Your task to perform on an android device: change notification settings in the gmail app Image 0: 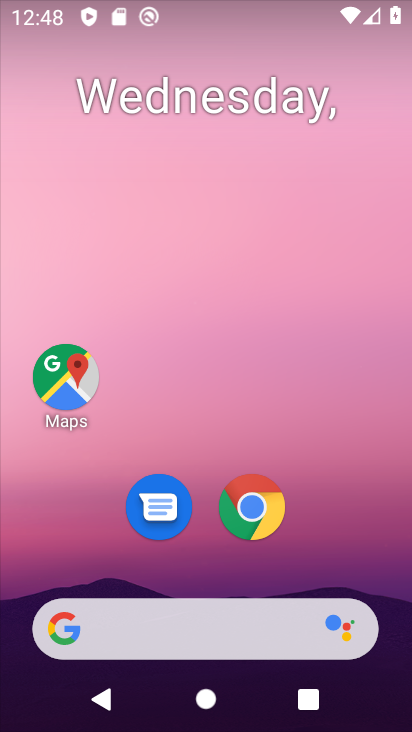
Step 0: press home button
Your task to perform on an android device: change notification settings in the gmail app Image 1: 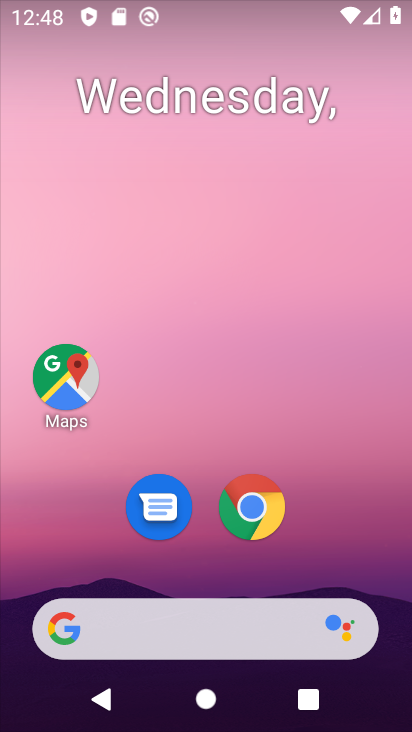
Step 1: drag from (210, 493) to (294, 163)
Your task to perform on an android device: change notification settings in the gmail app Image 2: 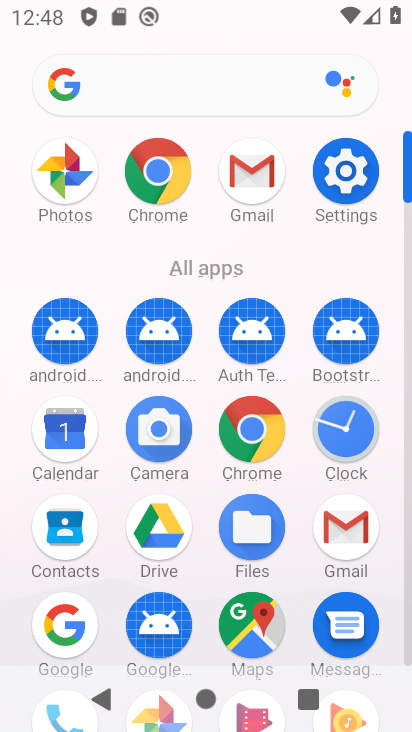
Step 2: click (240, 159)
Your task to perform on an android device: change notification settings in the gmail app Image 3: 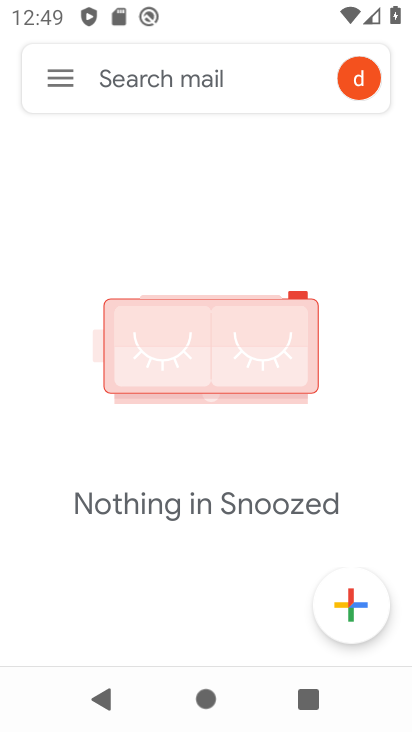
Step 3: click (59, 78)
Your task to perform on an android device: change notification settings in the gmail app Image 4: 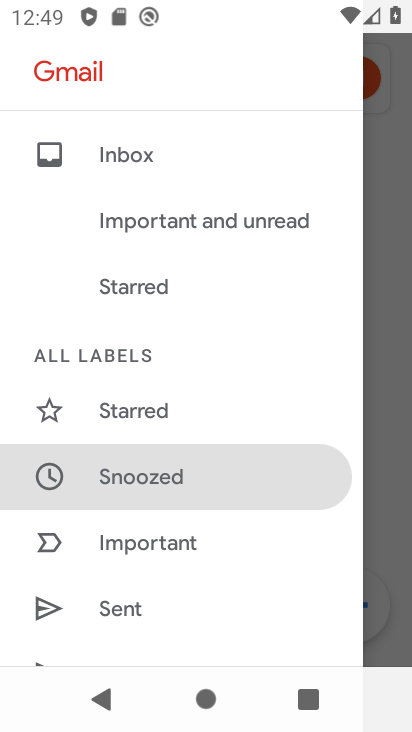
Step 4: drag from (176, 635) to (233, 114)
Your task to perform on an android device: change notification settings in the gmail app Image 5: 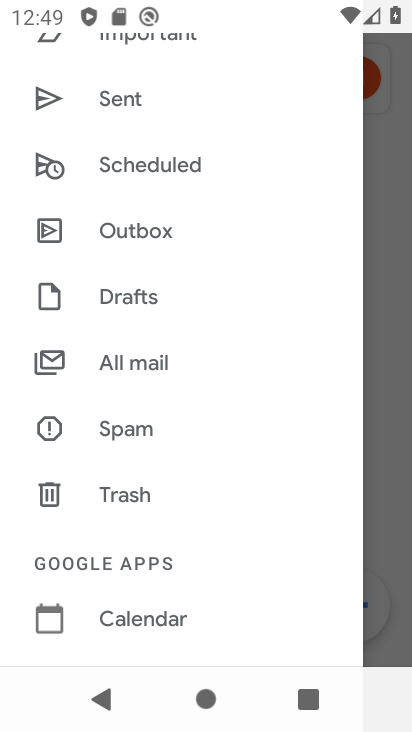
Step 5: drag from (172, 634) to (209, 217)
Your task to perform on an android device: change notification settings in the gmail app Image 6: 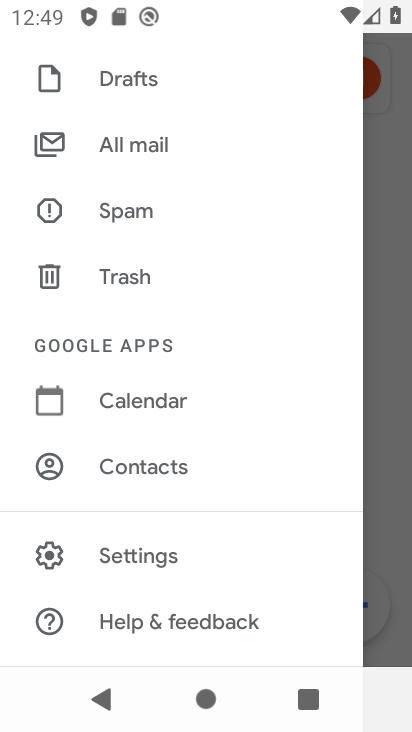
Step 6: click (139, 553)
Your task to perform on an android device: change notification settings in the gmail app Image 7: 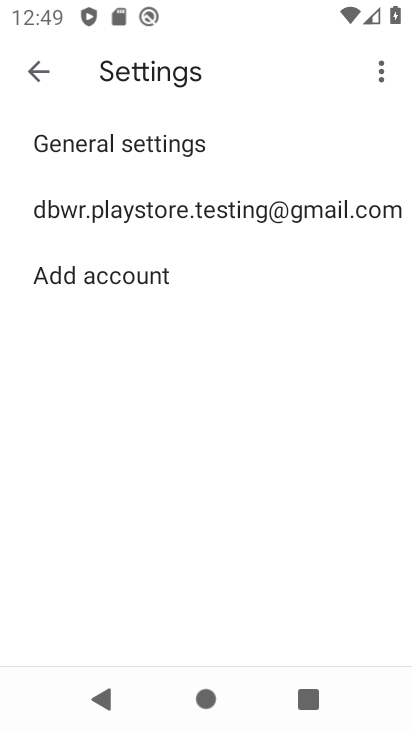
Step 7: click (246, 216)
Your task to perform on an android device: change notification settings in the gmail app Image 8: 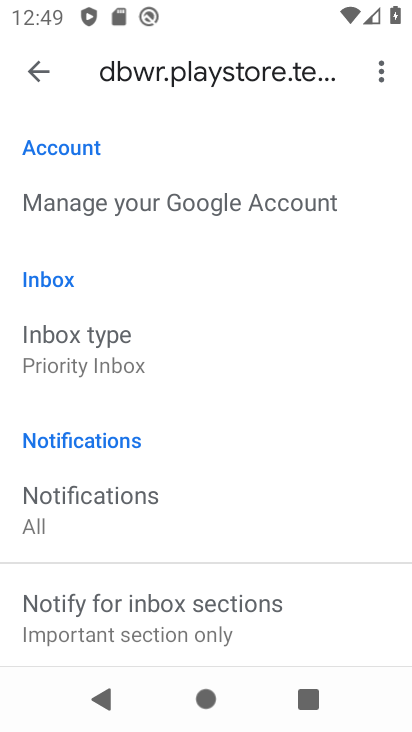
Step 8: click (76, 516)
Your task to perform on an android device: change notification settings in the gmail app Image 9: 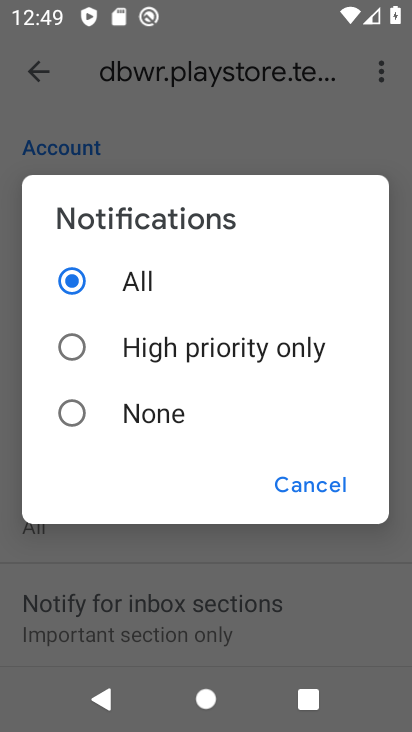
Step 9: click (67, 412)
Your task to perform on an android device: change notification settings in the gmail app Image 10: 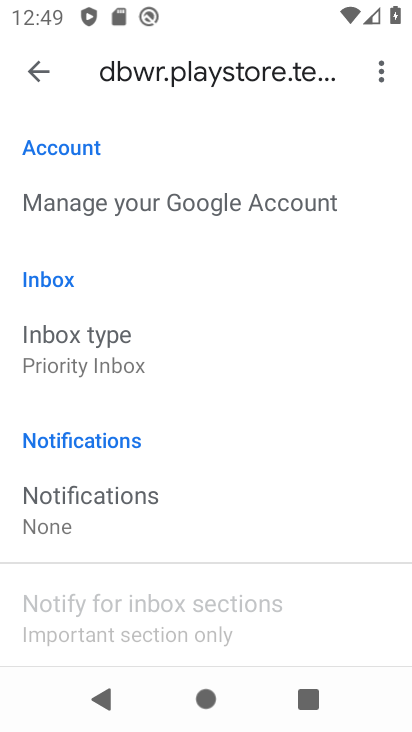
Step 10: task complete